Your task to perform on an android device: open chrome and create a bookmark for the current page Image 0: 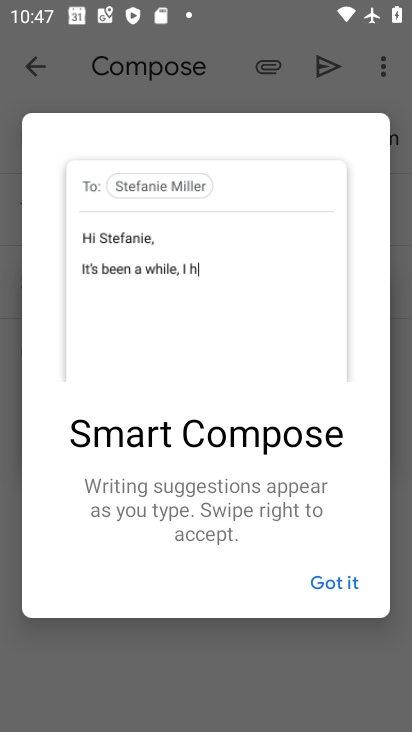
Step 0: press home button
Your task to perform on an android device: open chrome and create a bookmark for the current page Image 1: 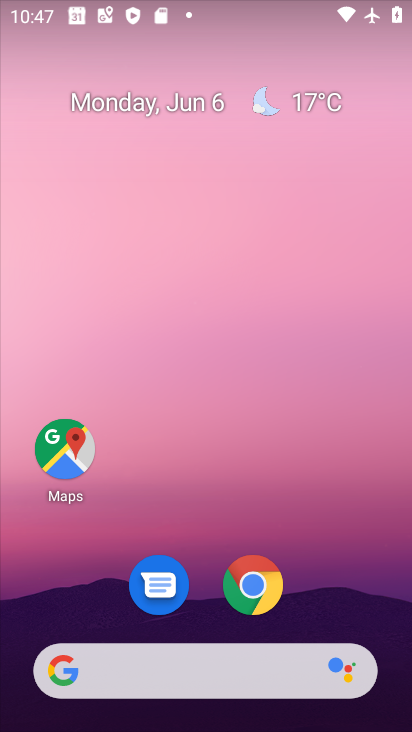
Step 1: click (249, 577)
Your task to perform on an android device: open chrome and create a bookmark for the current page Image 2: 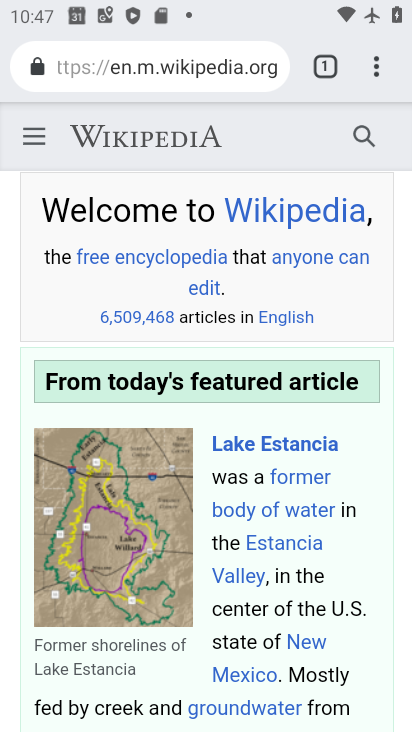
Step 2: click (378, 72)
Your task to perform on an android device: open chrome and create a bookmark for the current page Image 3: 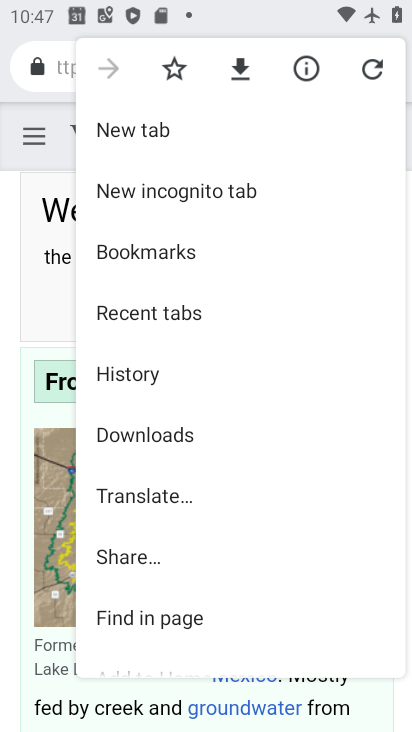
Step 3: click (174, 57)
Your task to perform on an android device: open chrome and create a bookmark for the current page Image 4: 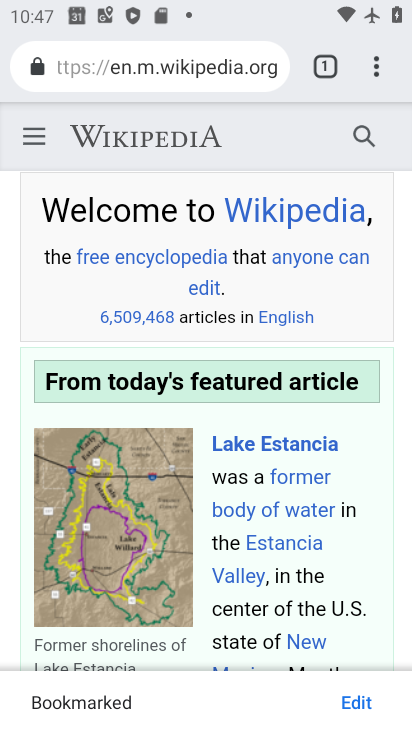
Step 4: task complete